Your task to perform on an android device: Open calendar and show me the third week of next month Image 0: 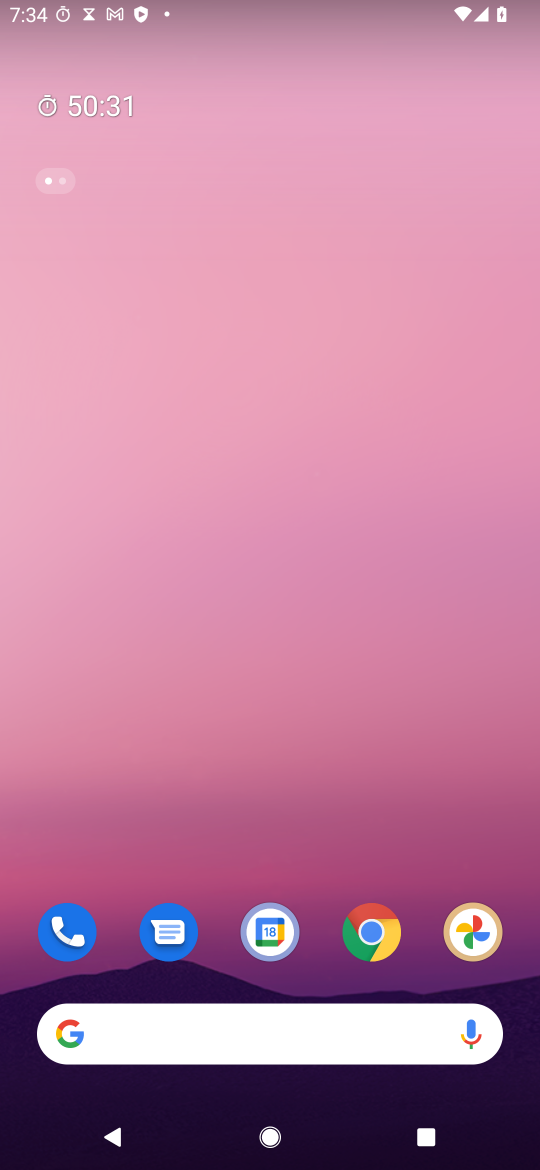
Step 0: drag from (399, 868) to (284, 0)
Your task to perform on an android device: Open calendar and show me the third week of next month Image 1: 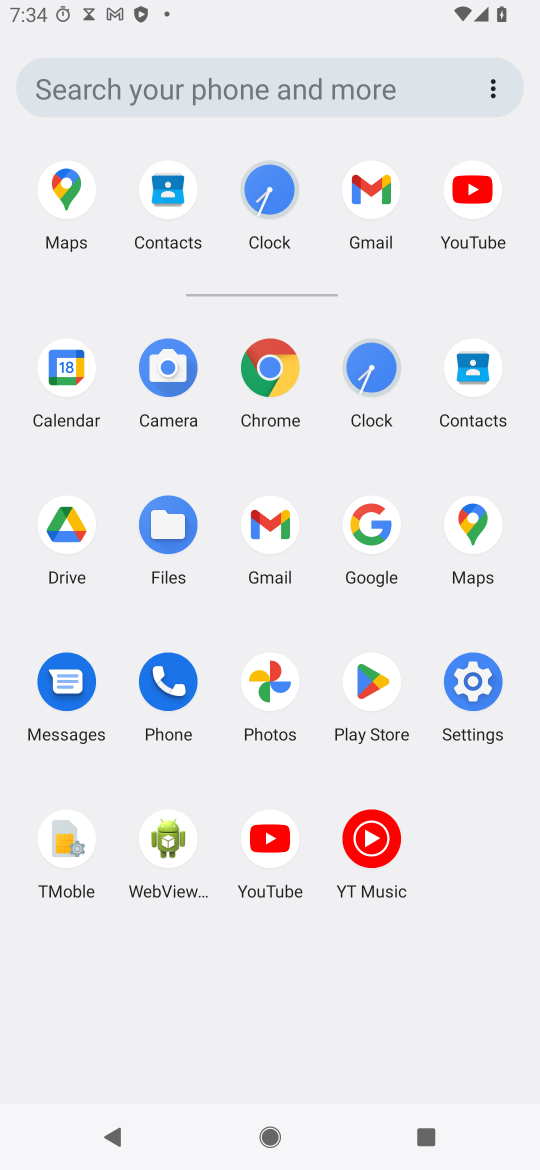
Step 1: click (69, 376)
Your task to perform on an android device: Open calendar and show me the third week of next month Image 2: 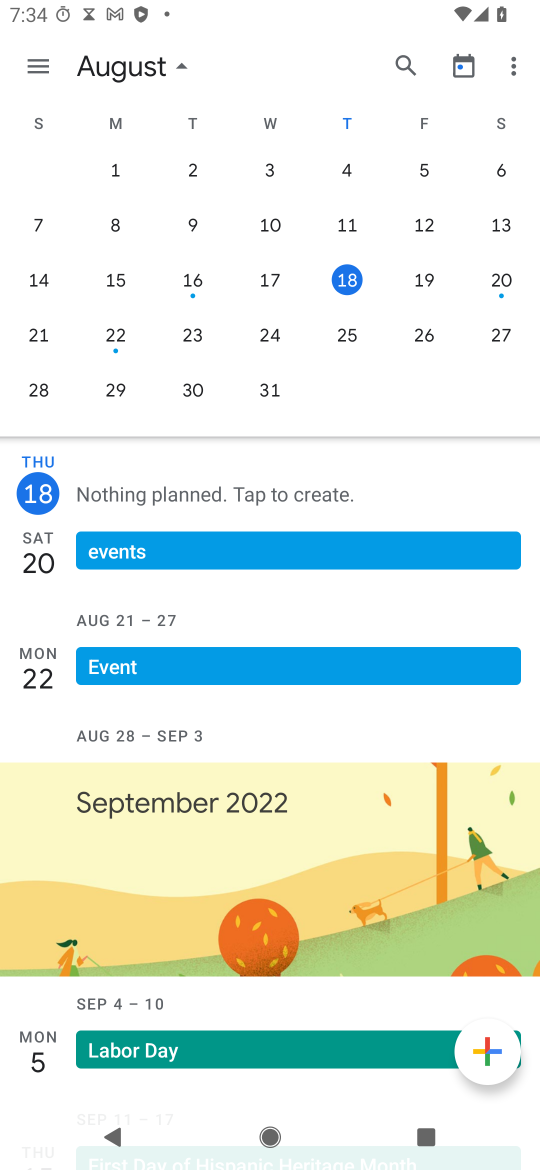
Step 2: drag from (470, 249) to (11, 194)
Your task to perform on an android device: Open calendar and show me the third week of next month Image 3: 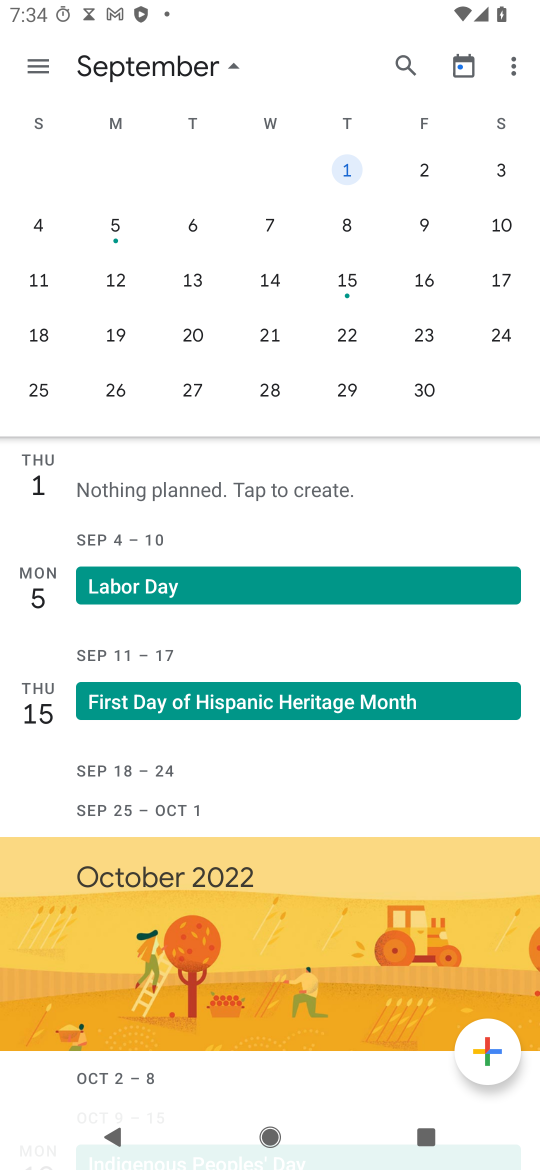
Step 3: click (385, 259)
Your task to perform on an android device: Open calendar and show me the third week of next month Image 4: 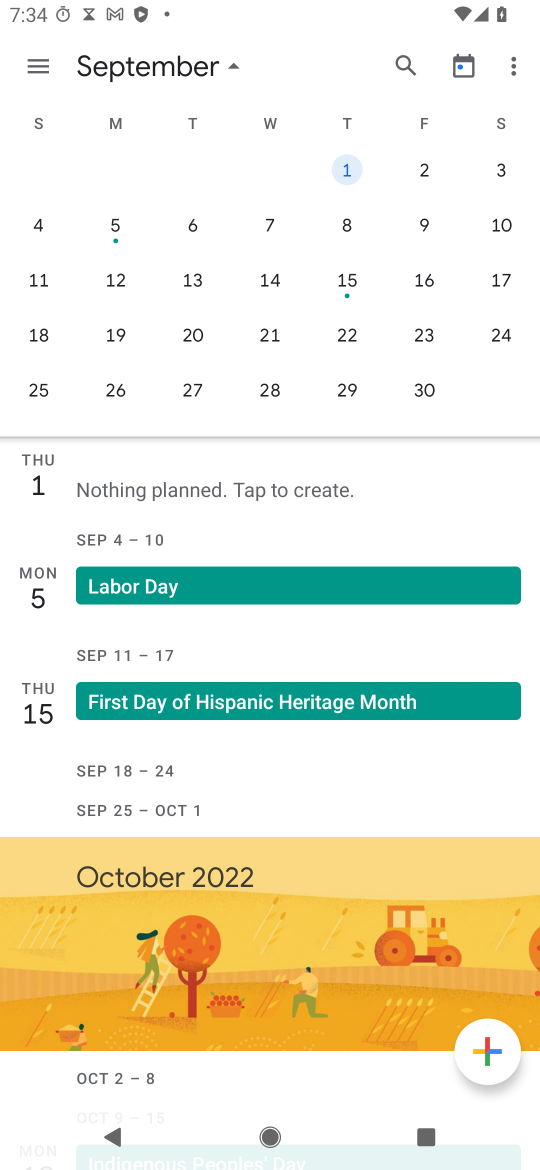
Step 4: click (344, 329)
Your task to perform on an android device: Open calendar and show me the third week of next month Image 5: 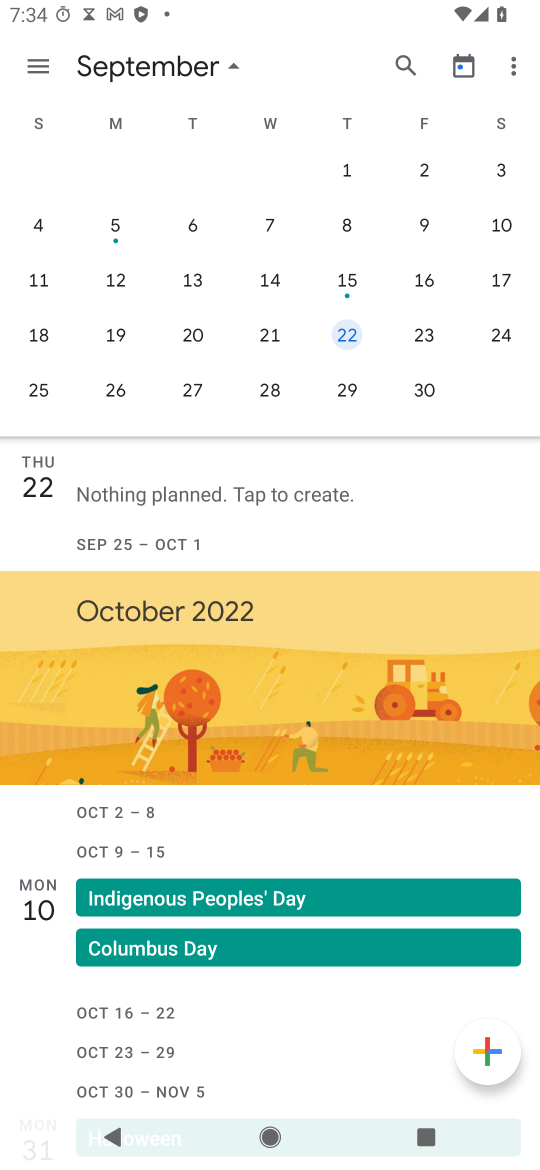
Step 5: task complete